Your task to perform on an android device: turn on location history Image 0: 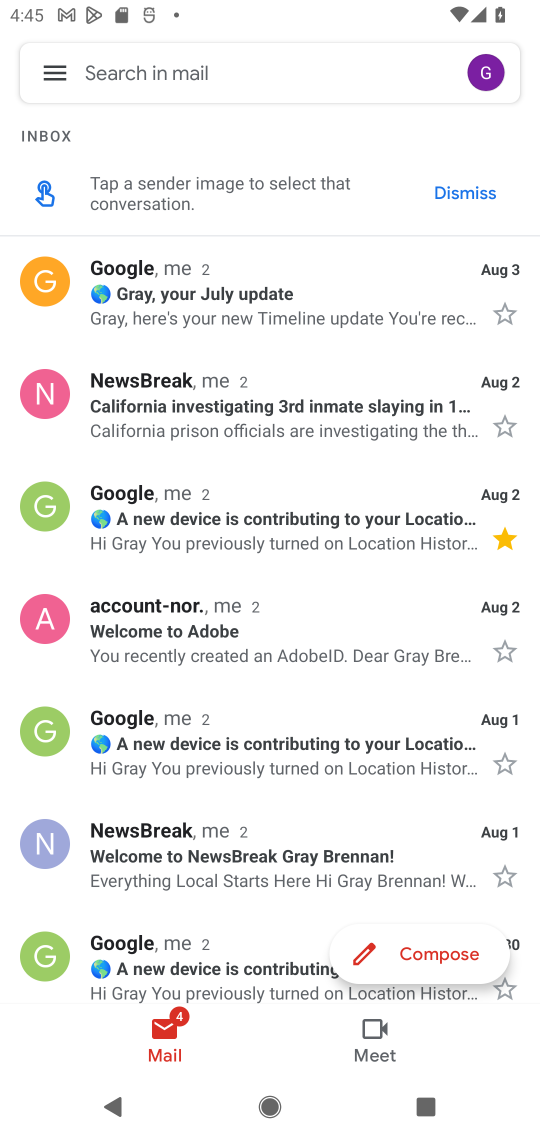
Step 0: press home button
Your task to perform on an android device: turn on location history Image 1: 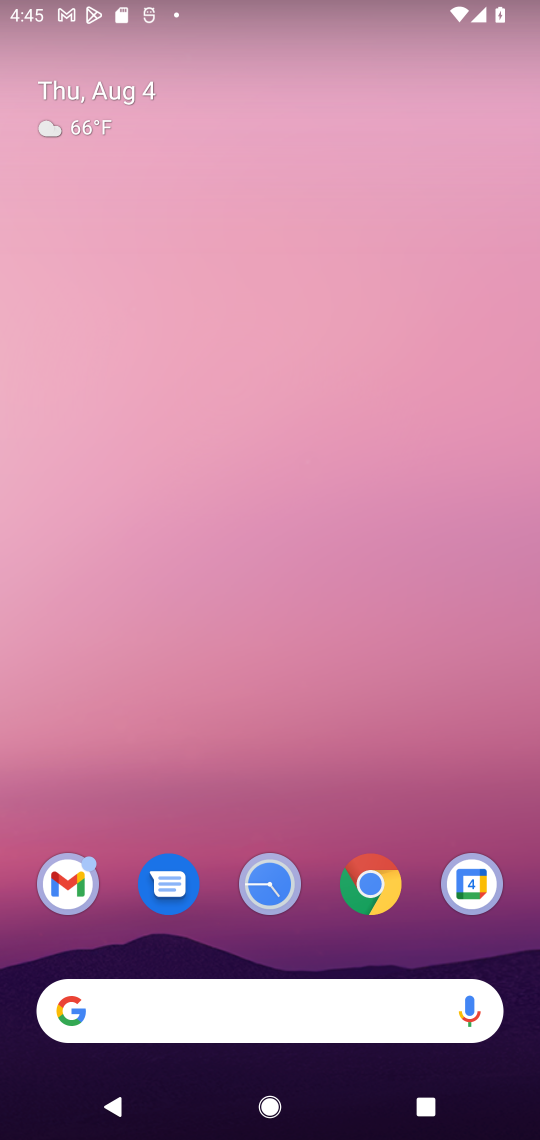
Step 1: drag from (224, 957) to (186, 491)
Your task to perform on an android device: turn on location history Image 2: 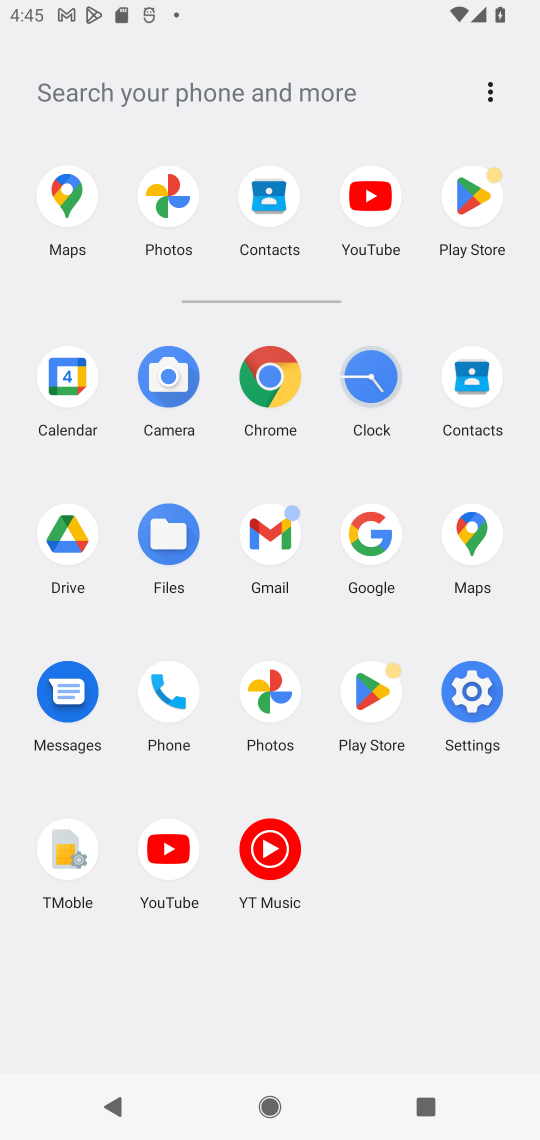
Step 2: click (473, 736)
Your task to perform on an android device: turn on location history Image 3: 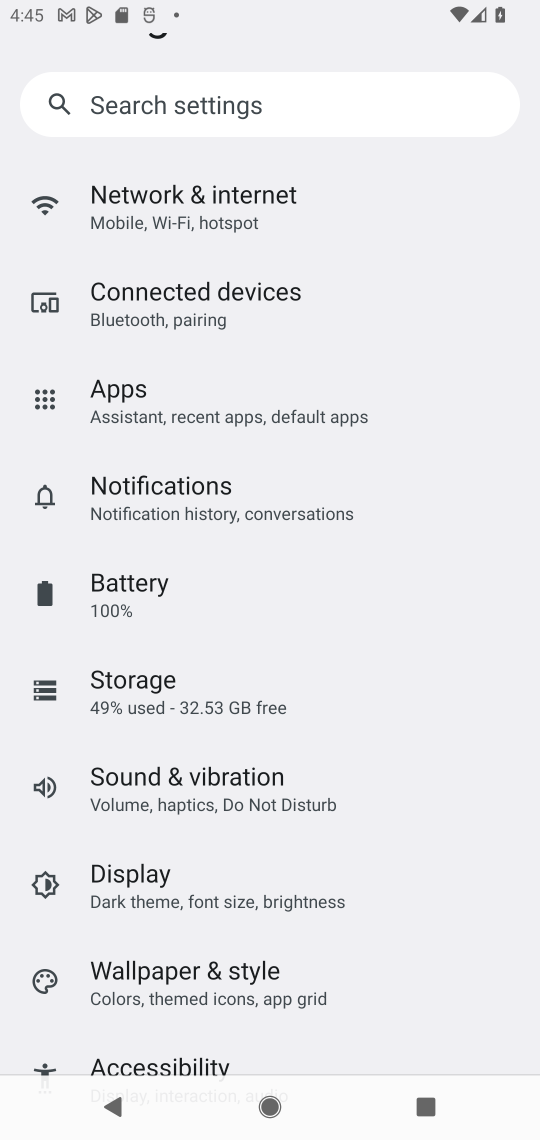
Step 3: task complete